Your task to perform on an android device: turn off translation in the chrome app Image 0: 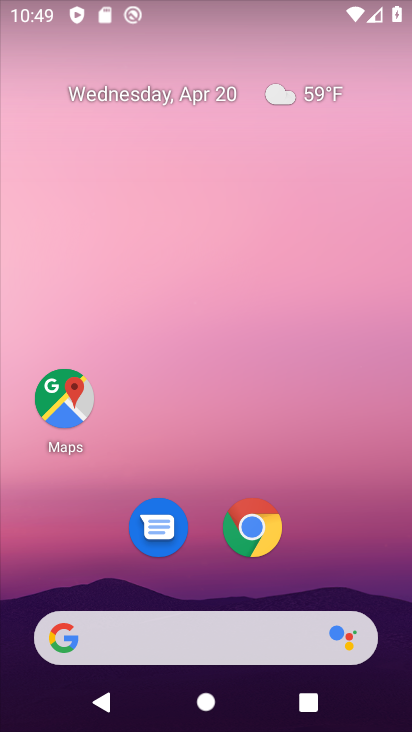
Step 0: drag from (365, 538) to (380, 163)
Your task to perform on an android device: turn off translation in the chrome app Image 1: 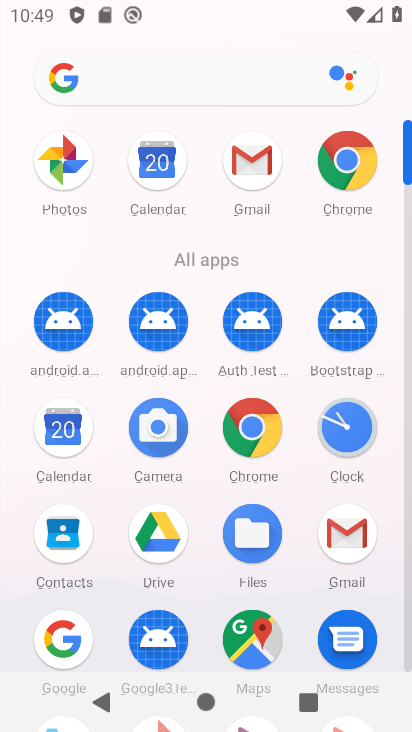
Step 1: drag from (383, 586) to (396, 233)
Your task to perform on an android device: turn off translation in the chrome app Image 2: 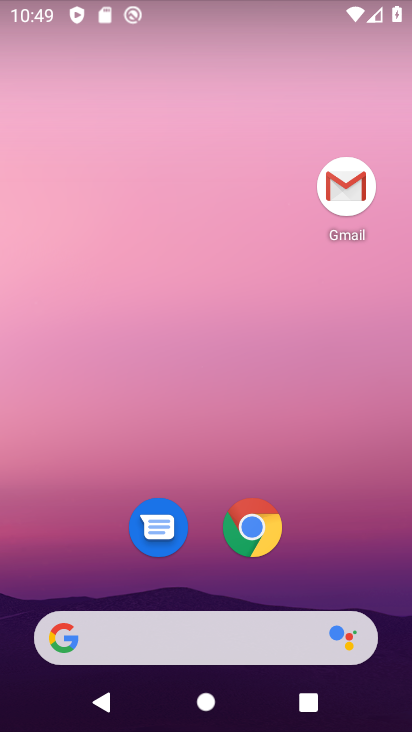
Step 2: drag from (359, 517) to (374, 78)
Your task to perform on an android device: turn off translation in the chrome app Image 3: 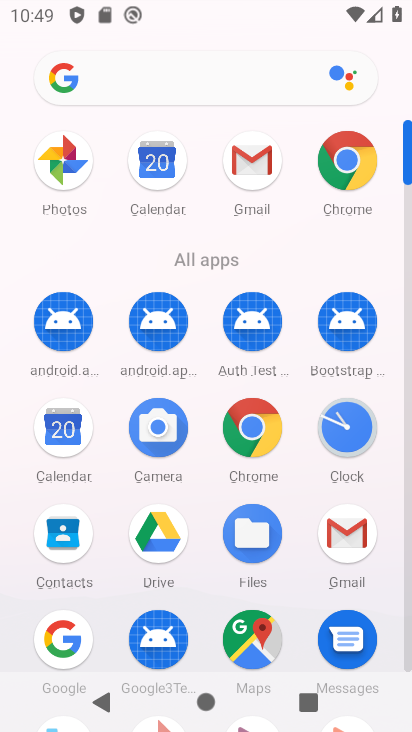
Step 3: click (252, 432)
Your task to perform on an android device: turn off translation in the chrome app Image 4: 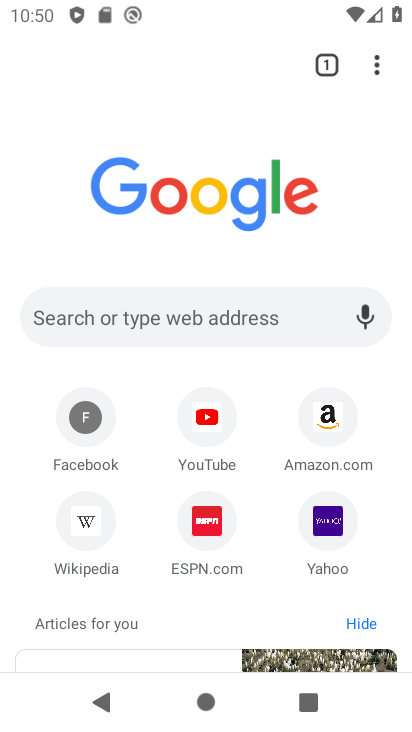
Step 4: drag from (377, 77) to (203, 560)
Your task to perform on an android device: turn off translation in the chrome app Image 5: 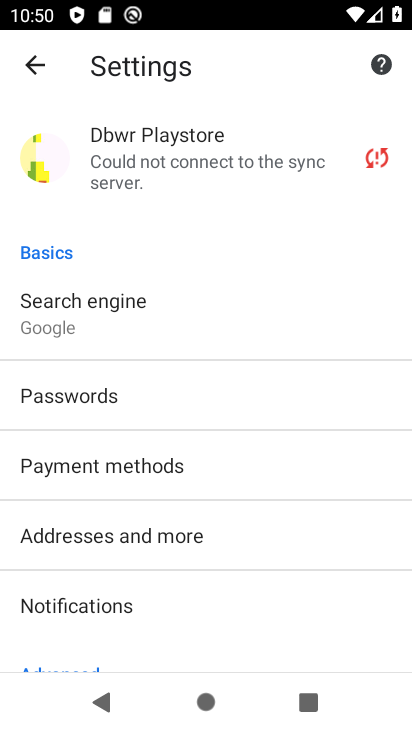
Step 5: drag from (236, 630) to (274, 351)
Your task to perform on an android device: turn off translation in the chrome app Image 6: 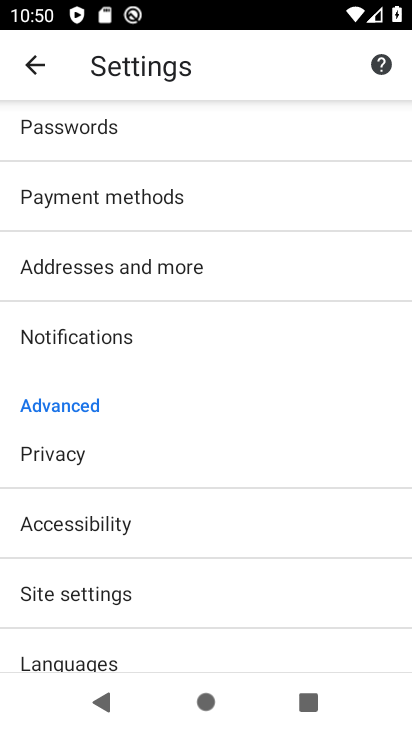
Step 6: drag from (218, 602) to (262, 372)
Your task to perform on an android device: turn off translation in the chrome app Image 7: 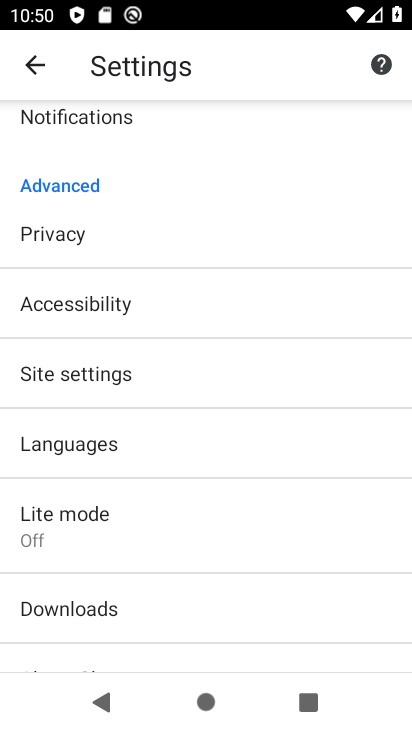
Step 7: click (161, 451)
Your task to perform on an android device: turn off translation in the chrome app Image 8: 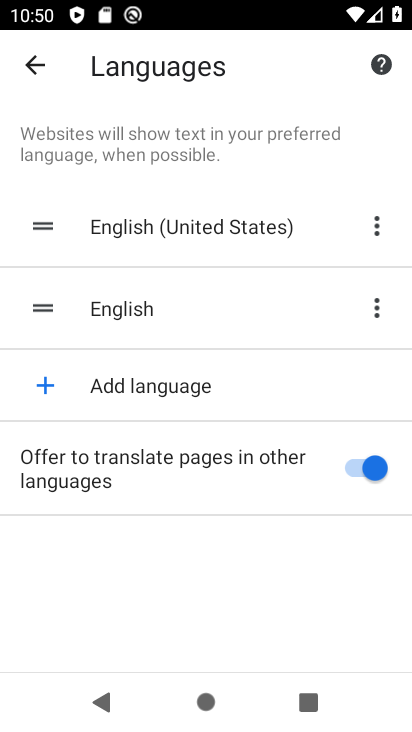
Step 8: click (356, 470)
Your task to perform on an android device: turn off translation in the chrome app Image 9: 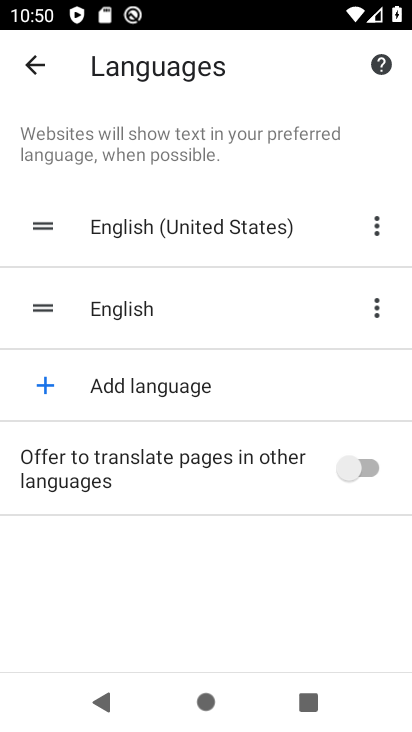
Step 9: task complete